Your task to perform on an android device: Find coffee shops on Maps Image 0: 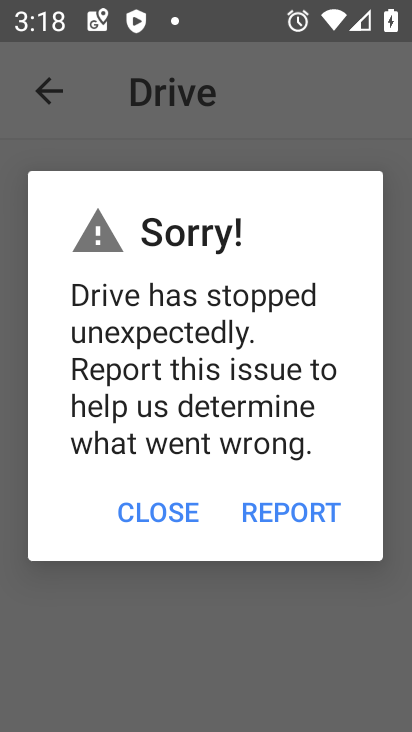
Step 0: press home button
Your task to perform on an android device: Find coffee shops on Maps Image 1: 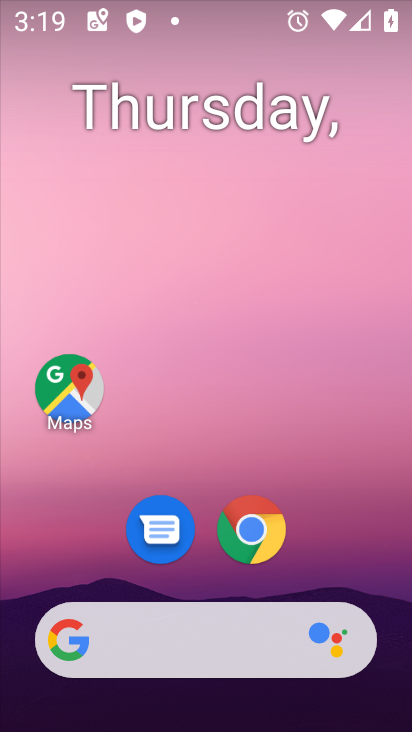
Step 1: click (68, 391)
Your task to perform on an android device: Find coffee shops on Maps Image 2: 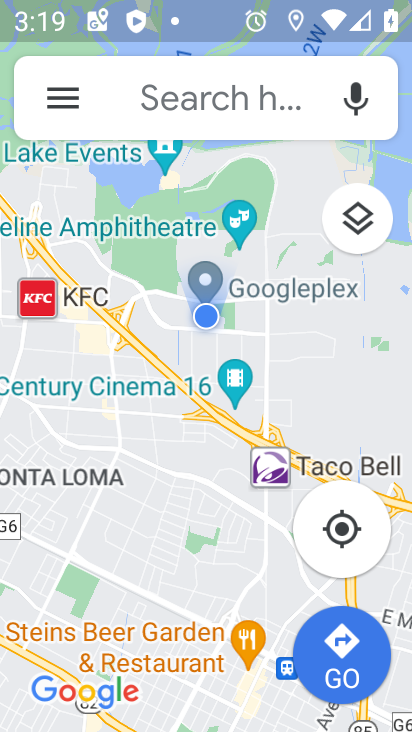
Step 2: click (186, 100)
Your task to perform on an android device: Find coffee shops on Maps Image 3: 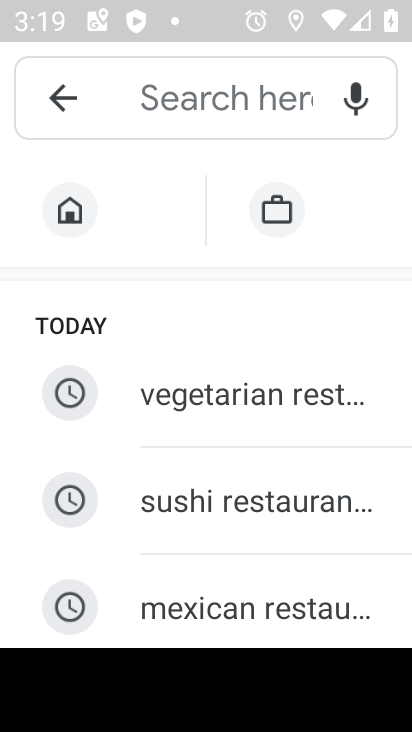
Step 3: type "coffee shops"
Your task to perform on an android device: Find coffee shops on Maps Image 4: 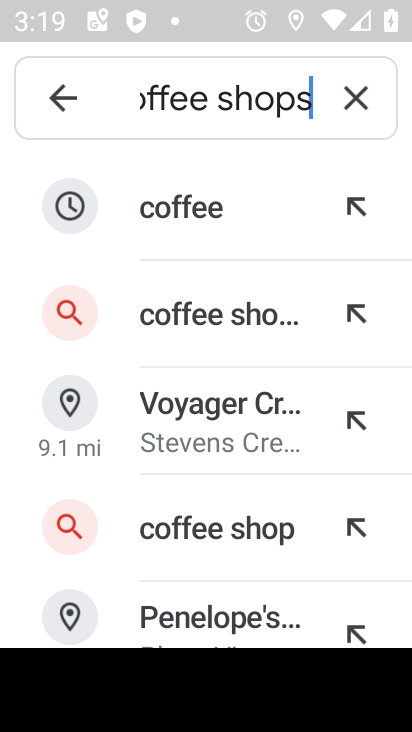
Step 4: click (211, 314)
Your task to perform on an android device: Find coffee shops on Maps Image 5: 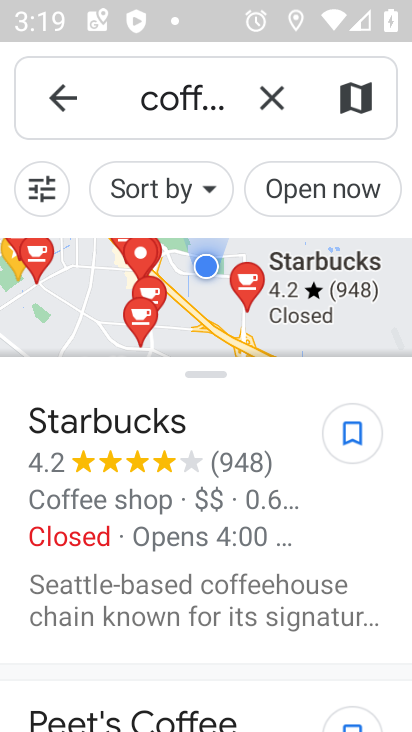
Step 5: task complete